Your task to perform on an android device: change keyboard looks Image 0: 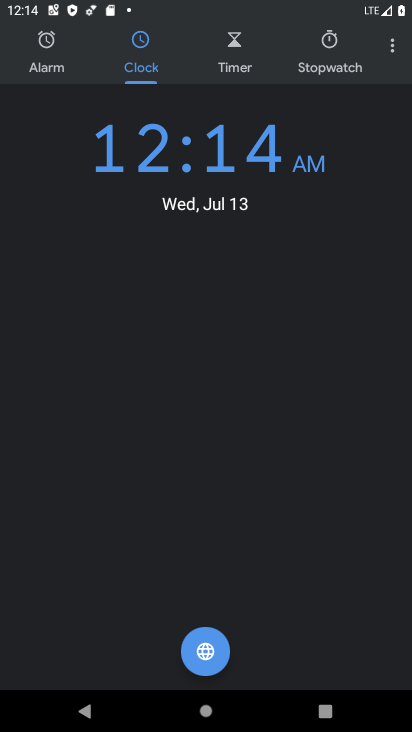
Step 0: task impossible